Your task to perform on an android device: Open privacy settings Image 0: 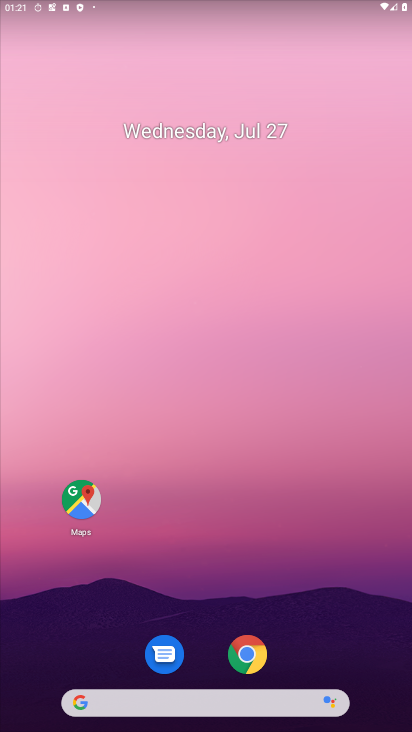
Step 0: drag from (180, 695) to (292, 85)
Your task to perform on an android device: Open privacy settings Image 1: 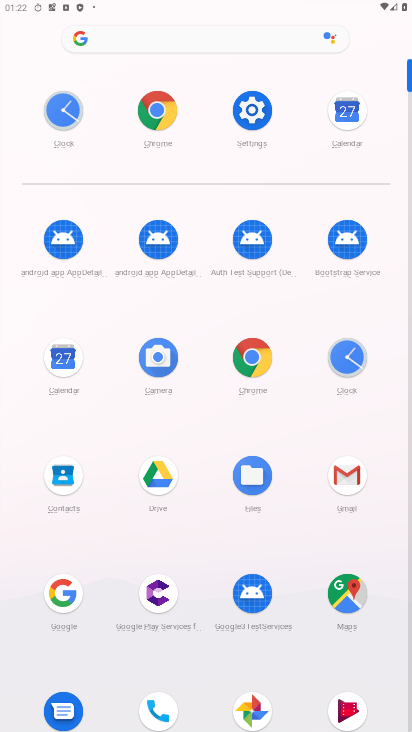
Step 1: click (242, 107)
Your task to perform on an android device: Open privacy settings Image 2: 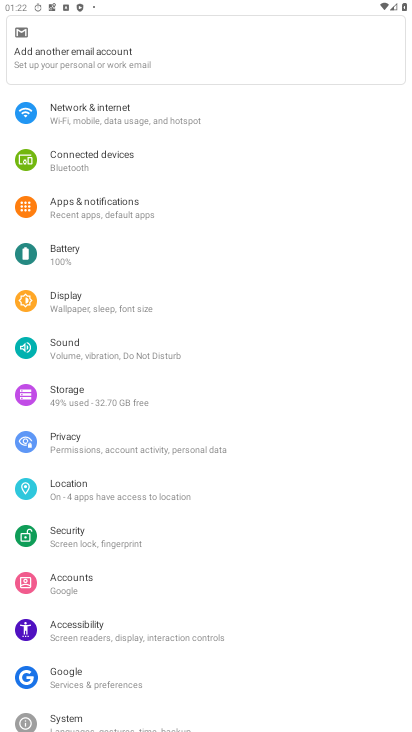
Step 2: click (119, 456)
Your task to perform on an android device: Open privacy settings Image 3: 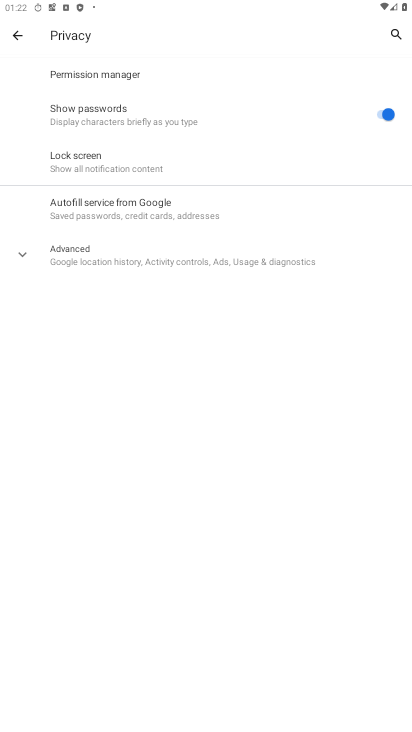
Step 3: click (115, 446)
Your task to perform on an android device: Open privacy settings Image 4: 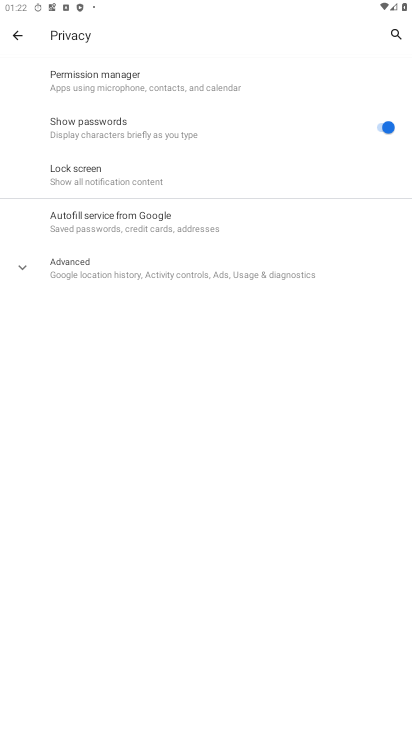
Step 4: task complete